Your task to perform on an android device: turn on notifications settings in the gmail app Image 0: 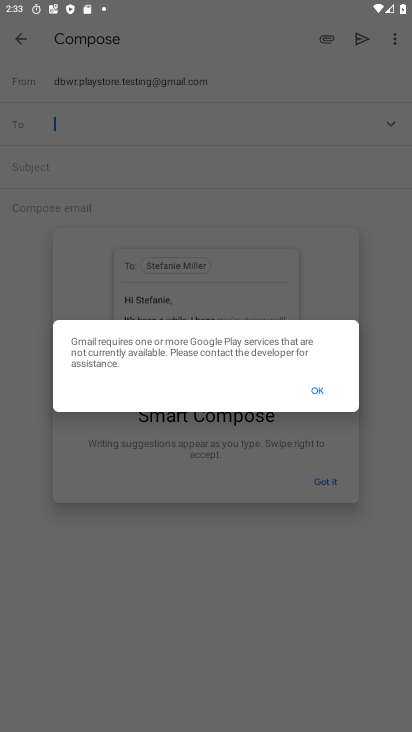
Step 0: press home button
Your task to perform on an android device: turn on notifications settings in the gmail app Image 1: 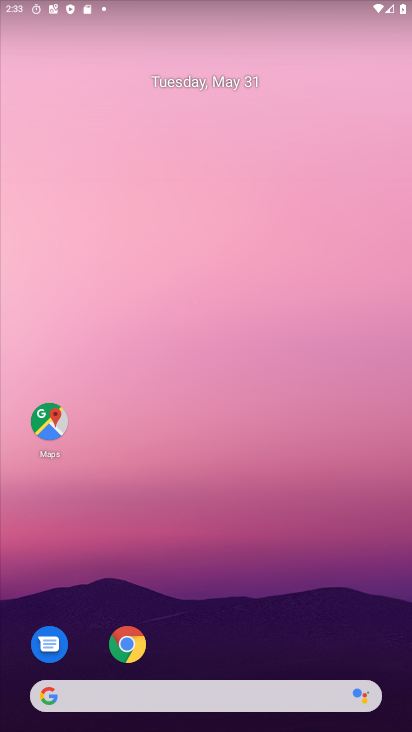
Step 1: drag from (399, 713) to (286, 81)
Your task to perform on an android device: turn on notifications settings in the gmail app Image 2: 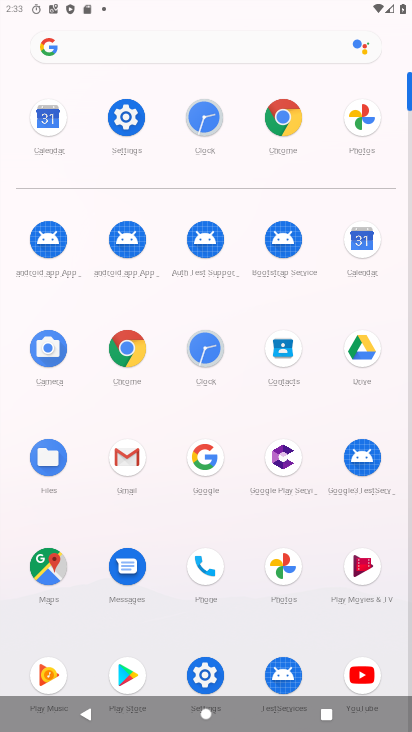
Step 2: click (118, 454)
Your task to perform on an android device: turn on notifications settings in the gmail app Image 3: 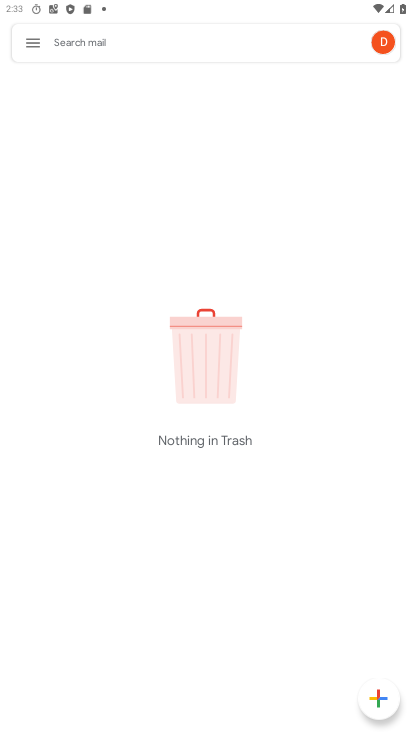
Step 3: click (38, 47)
Your task to perform on an android device: turn on notifications settings in the gmail app Image 4: 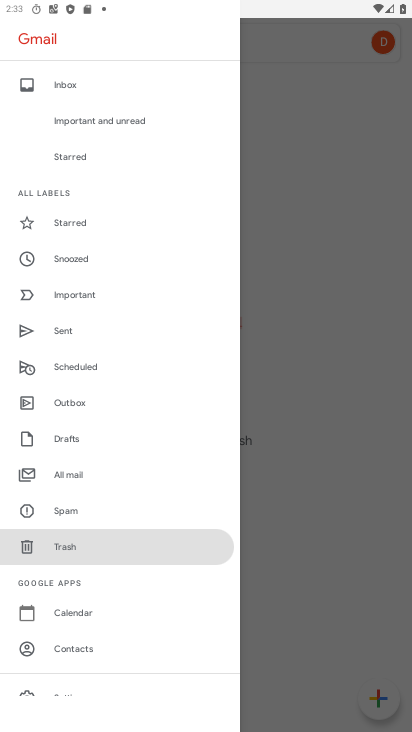
Step 4: drag from (148, 595) to (174, 394)
Your task to perform on an android device: turn on notifications settings in the gmail app Image 5: 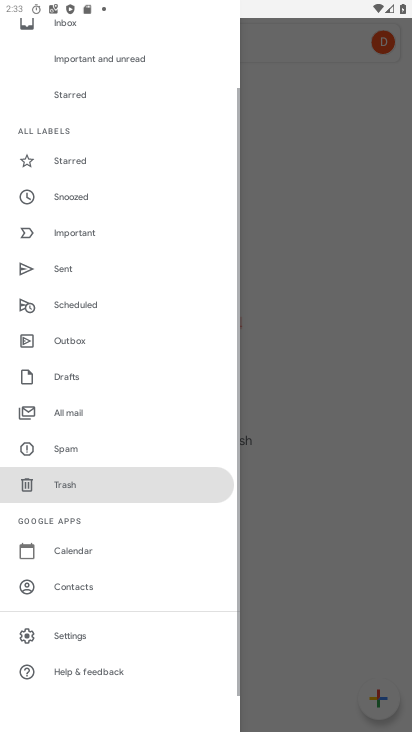
Step 5: click (61, 637)
Your task to perform on an android device: turn on notifications settings in the gmail app Image 6: 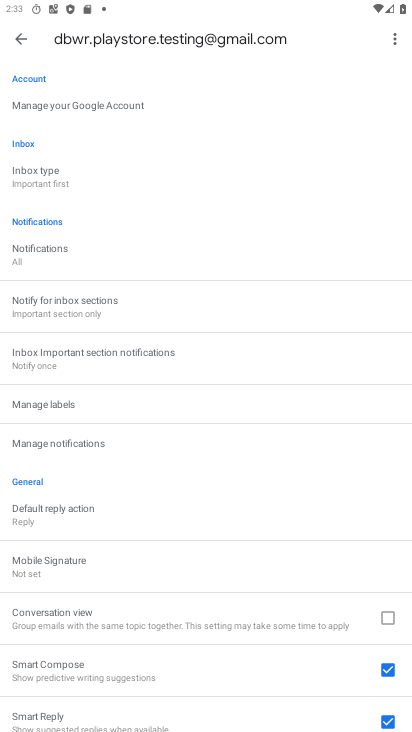
Step 6: click (17, 43)
Your task to perform on an android device: turn on notifications settings in the gmail app Image 7: 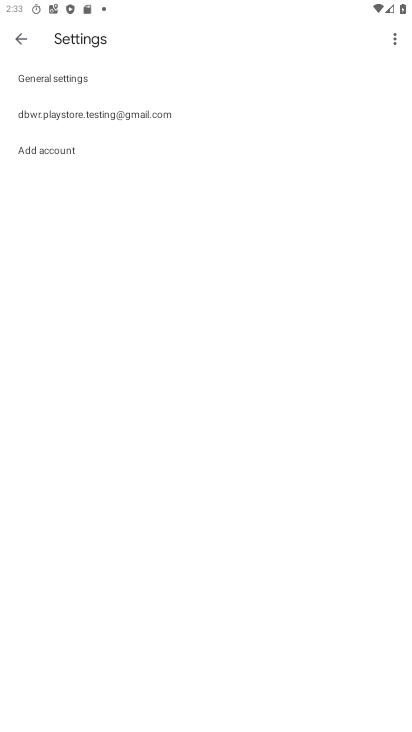
Step 7: click (42, 85)
Your task to perform on an android device: turn on notifications settings in the gmail app Image 8: 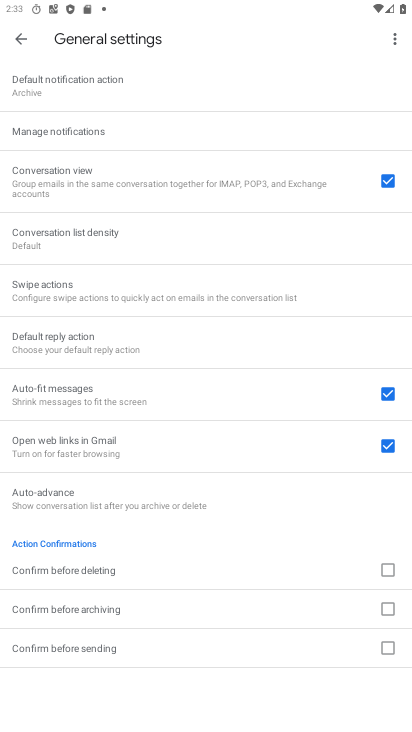
Step 8: click (68, 125)
Your task to perform on an android device: turn on notifications settings in the gmail app Image 9: 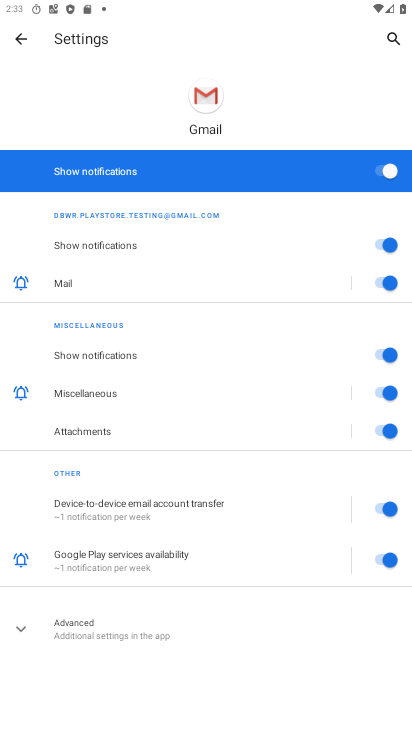
Step 9: task complete